Your task to perform on an android device: open a bookmark in the chrome app Image 0: 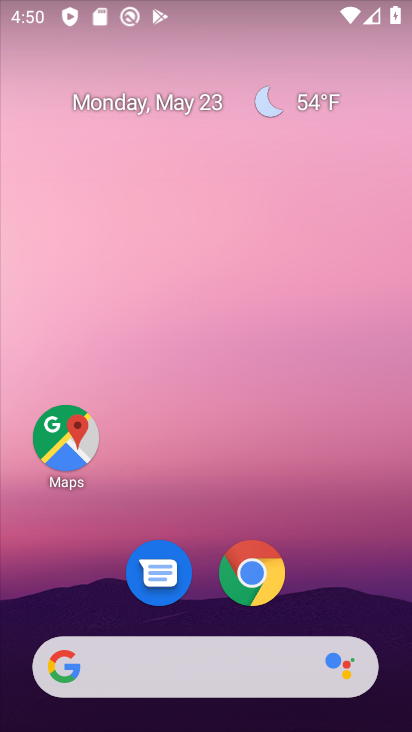
Step 0: click (255, 575)
Your task to perform on an android device: open a bookmark in the chrome app Image 1: 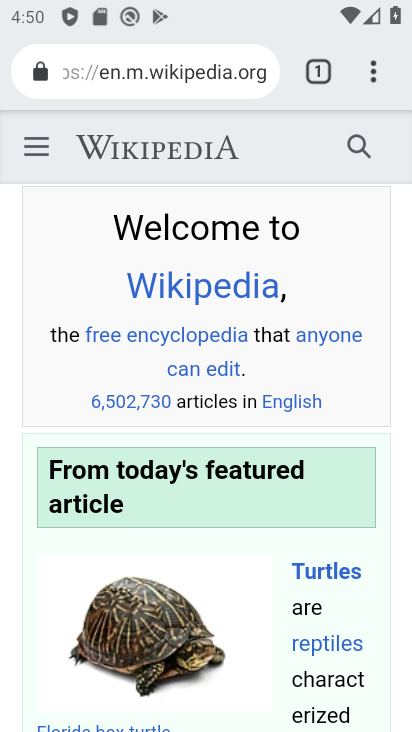
Step 1: click (374, 76)
Your task to perform on an android device: open a bookmark in the chrome app Image 2: 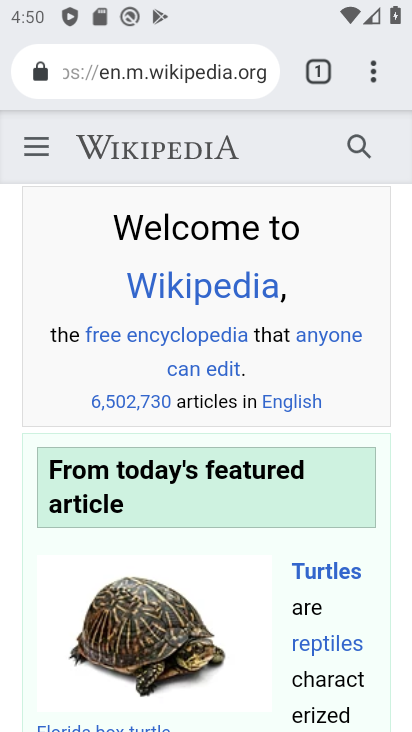
Step 2: click (374, 76)
Your task to perform on an android device: open a bookmark in the chrome app Image 3: 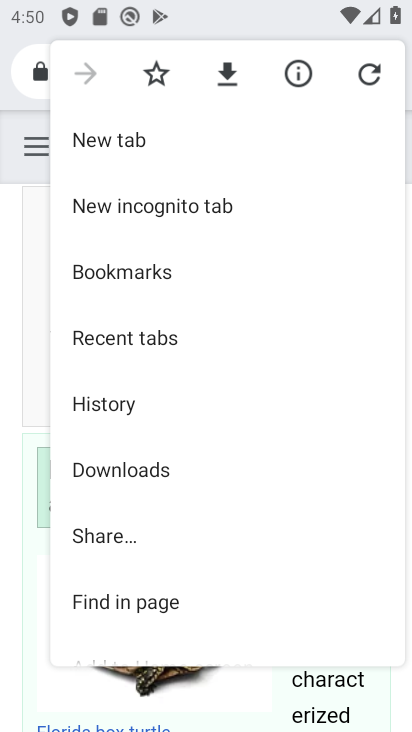
Step 3: click (111, 279)
Your task to perform on an android device: open a bookmark in the chrome app Image 4: 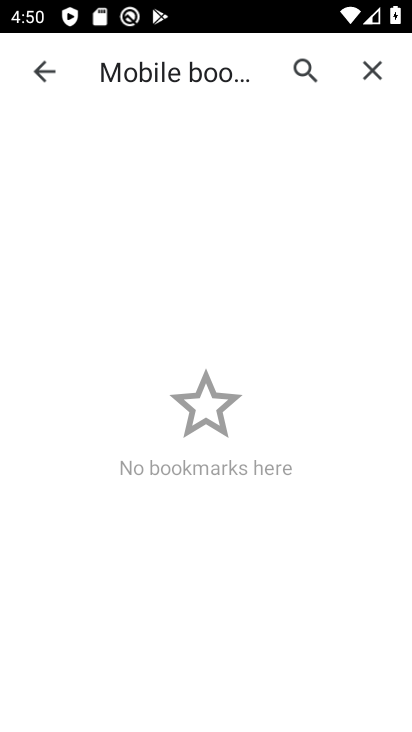
Step 4: task complete